Your task to perform on an android device: star an email in the gmail app Image 0: 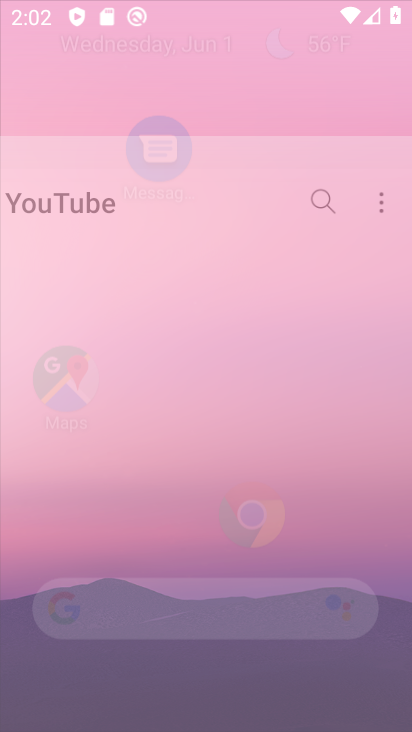
Step 0: click (265, 2)
Your task to perform on an android device: star an email in the gmail app Image 1: 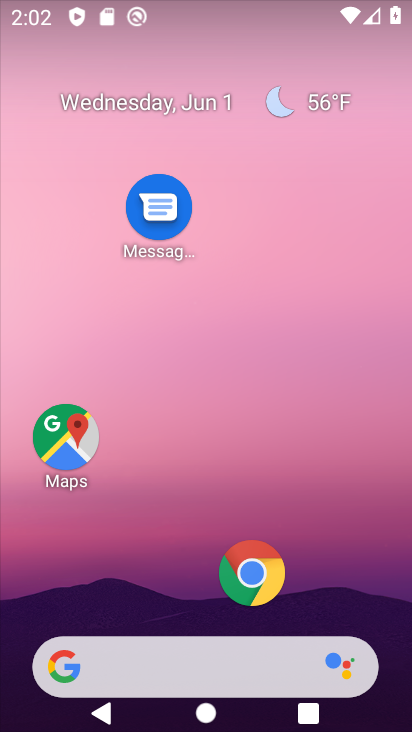
Step 1: drag from (210, 505) to (264, 109)
Your task to perform on an android device: star an email in the gmail app Image 2: 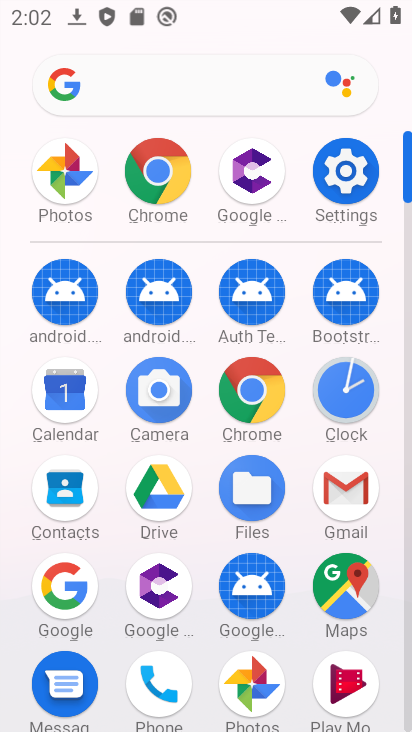
Step 2: click (355, 497)
Your task to perform on an android device: star an email in the gmail app Image 3: 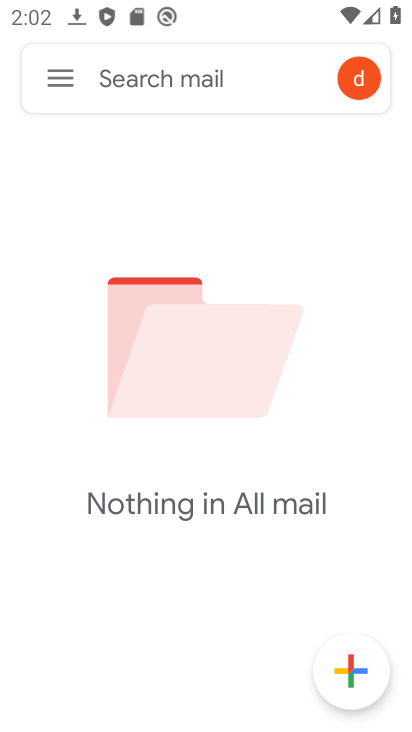
Step 3: click (55, 87)
Your task to perform on an android device: star an email in the gmail app Image 4: 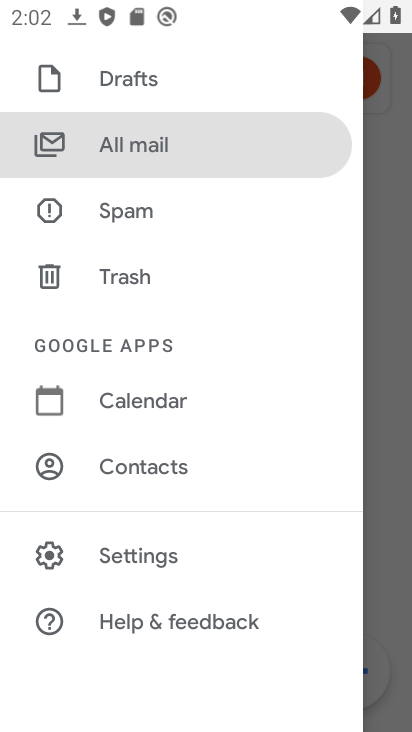
Step 4: click (99, 119)
Your task to perform on an android device: star an email in the gmail app Image 5: 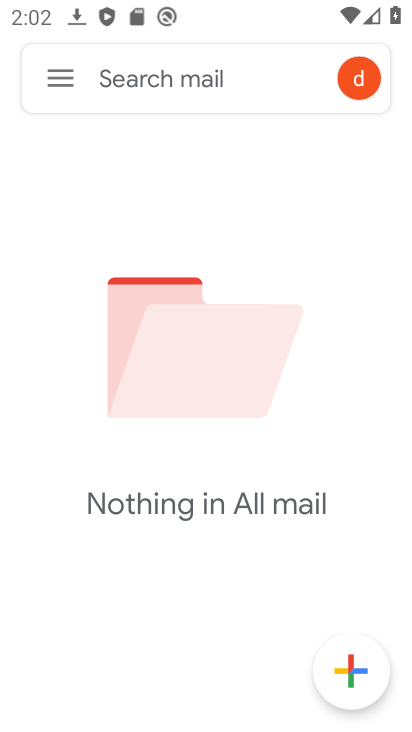
Step 5: task complete